Your task to perform on an android device: Open settings Image 0: 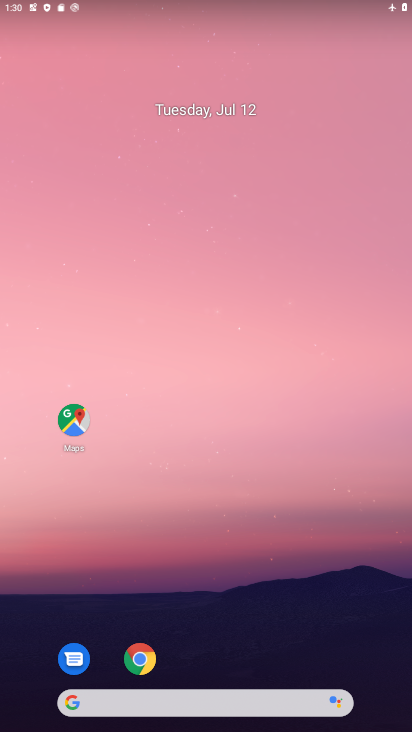
Step 0: drag from (217, 725) to (208, 105)
Your task to perform on an android device: Open settings Image 1: 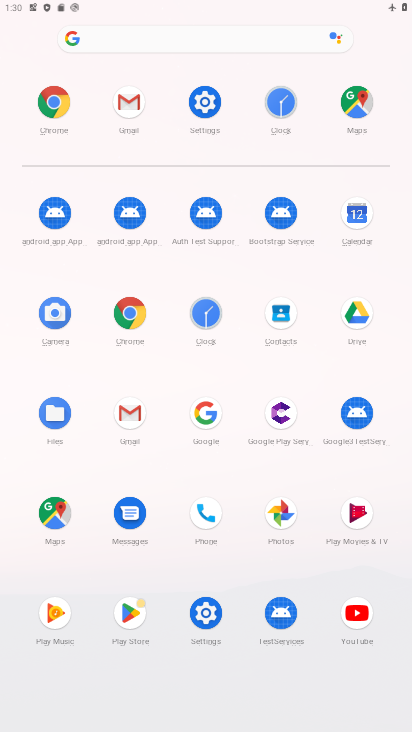
Step 1: click (196, 102)
Your task to perform on an android device: Open settings Image 2: 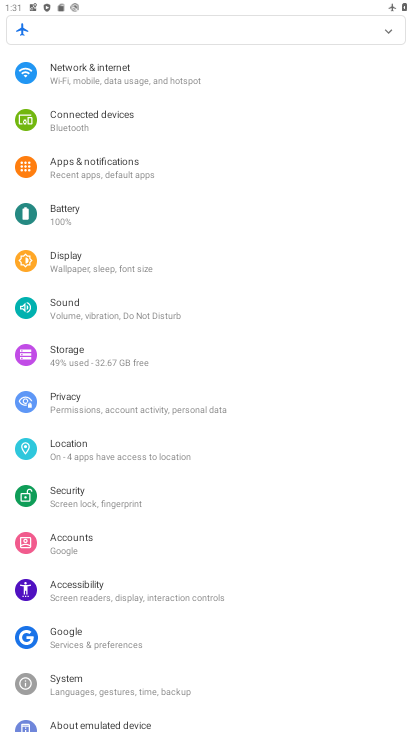
Step 2: task complete